Your task to perform on an android device: delete the emails in spam in the gmail app Image 0: 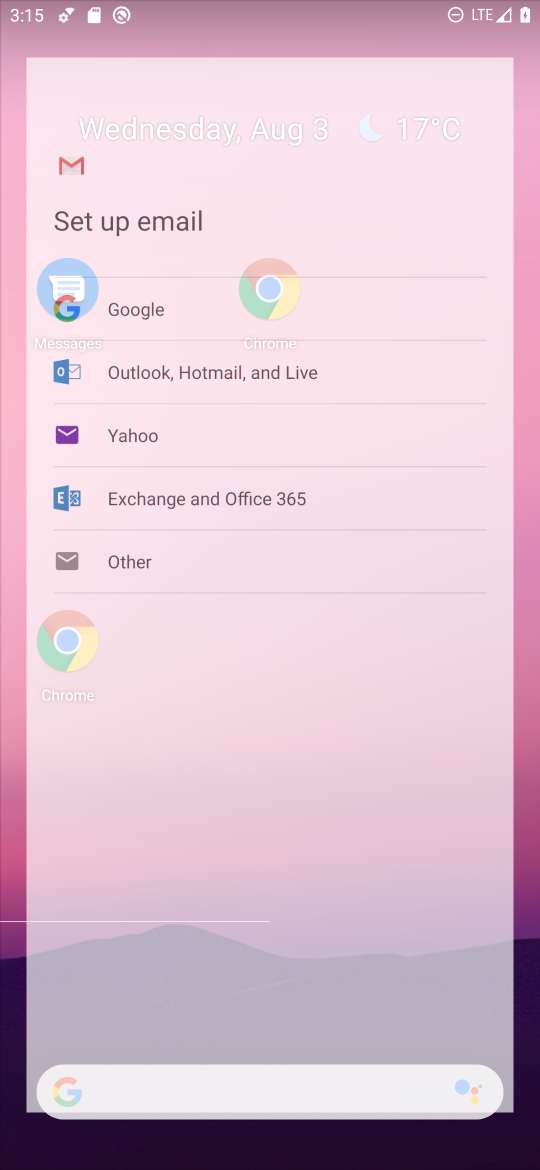
Step 0: press home button
Your task to perform on an android device: delete the emails in spam in the gmail app Image 1: 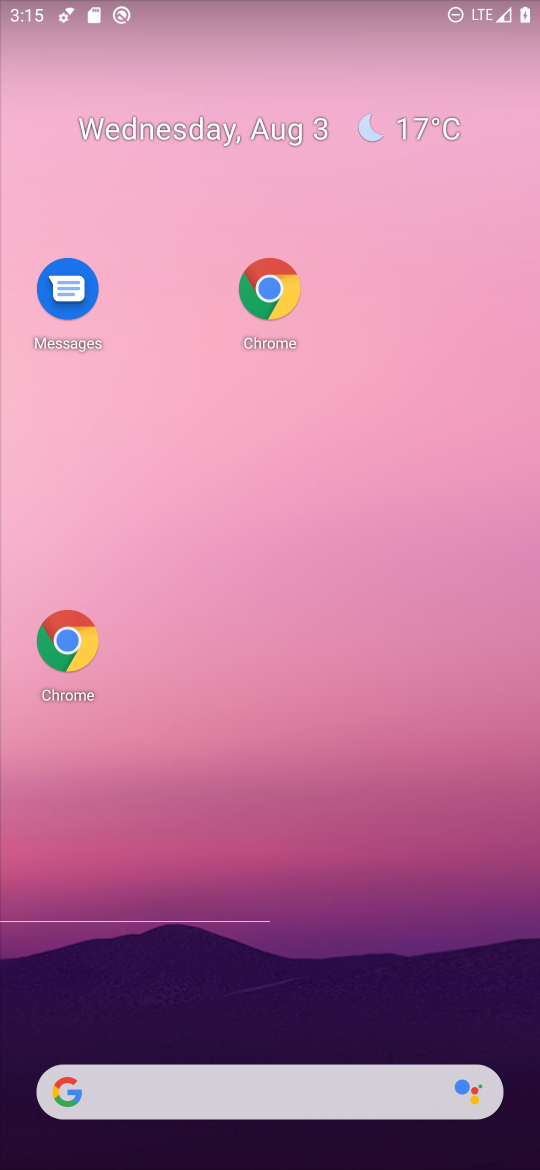
Step 1: drag from (425, 1051) to (418, 565)
Your task to perform on an android device: delete the emails in spam in the gmail app Image 2: 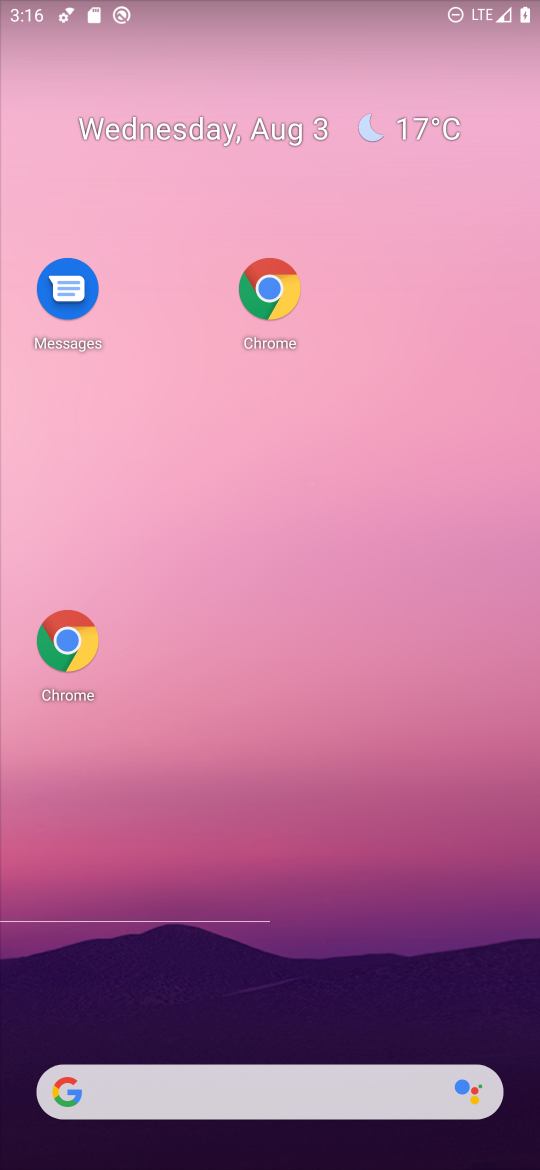
Step 2: drag from (376, 1021) to (376, 109)
Your task to perform on an android device: delete the emails in spam in the gmail app Image 3: 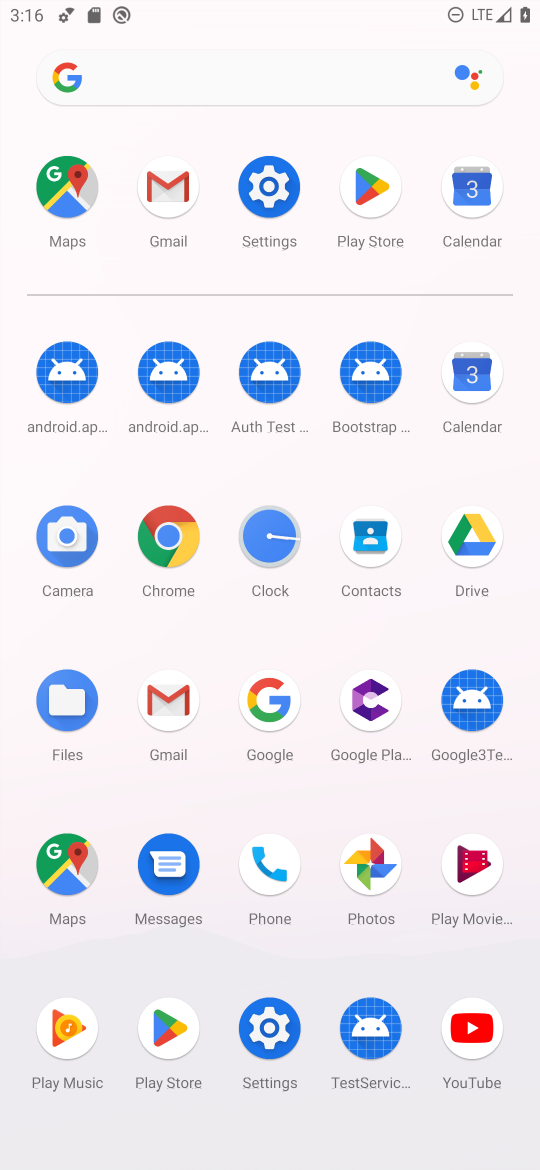
Step 3: click (194, 709)
Your task to perform on an android device: delete the emails in spam in the gmail app Image 4: 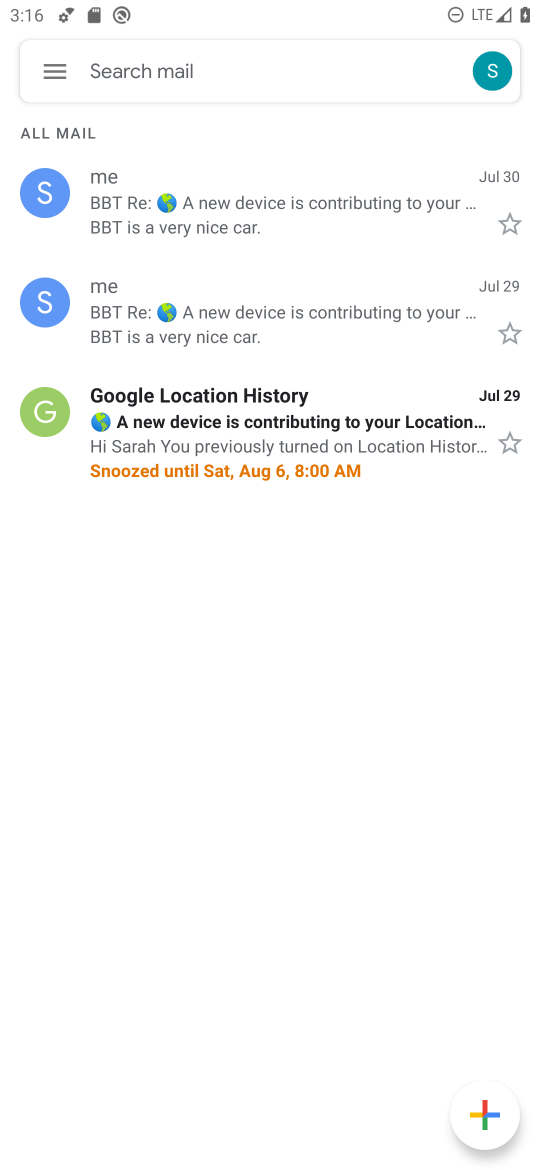
Step 4: click (57, 78)
Your task to perform on an android device: delete the emails in spam in the gmail app Image 5: 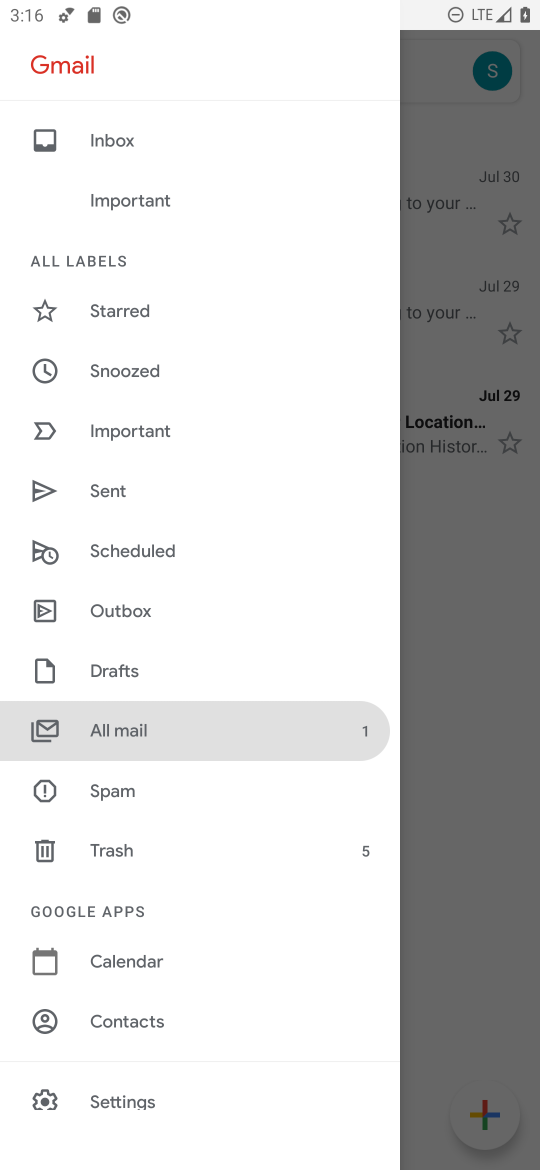
Step 5: task complete